Your task to perform on an android device: turn pop-ups on in chrome Image 0: 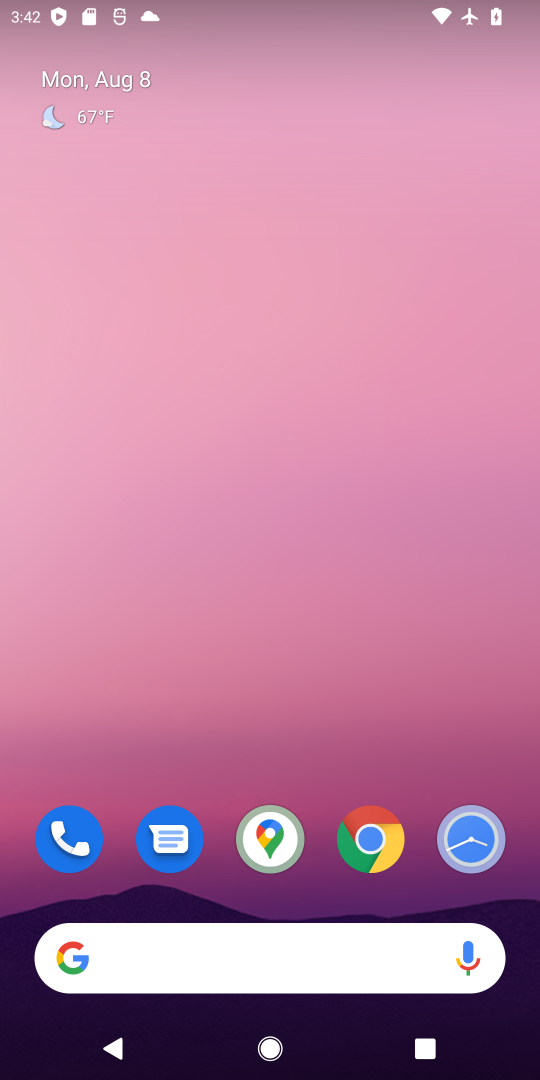
Step 0: press home button
Your task to perform on an android device: turn pop-ups on in chrome Image 1: 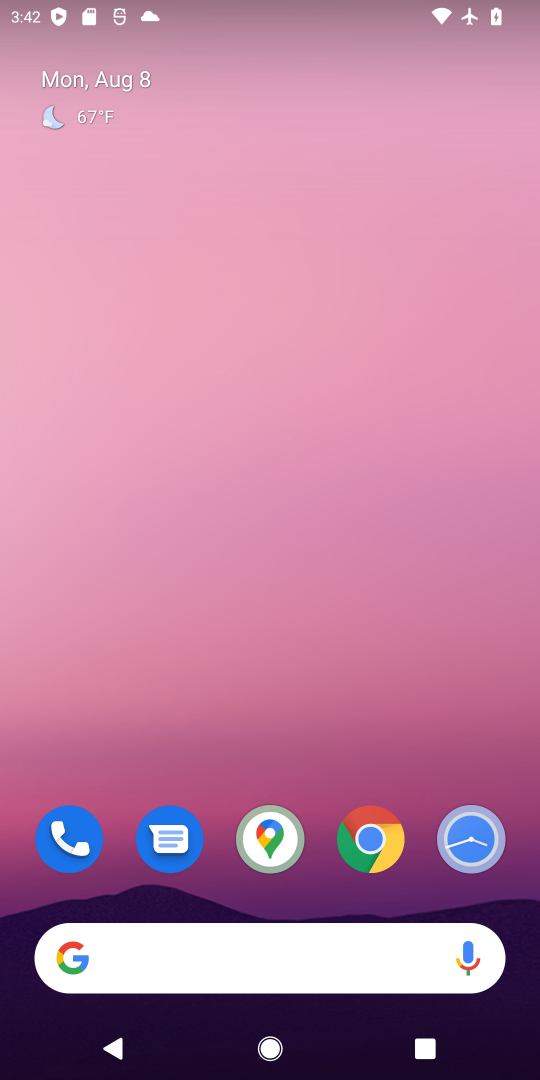
Step 1: drag from (414, 740) to (436, 234)
Your task to perform on an android device: turn pop-ups on in chrome Image 2: 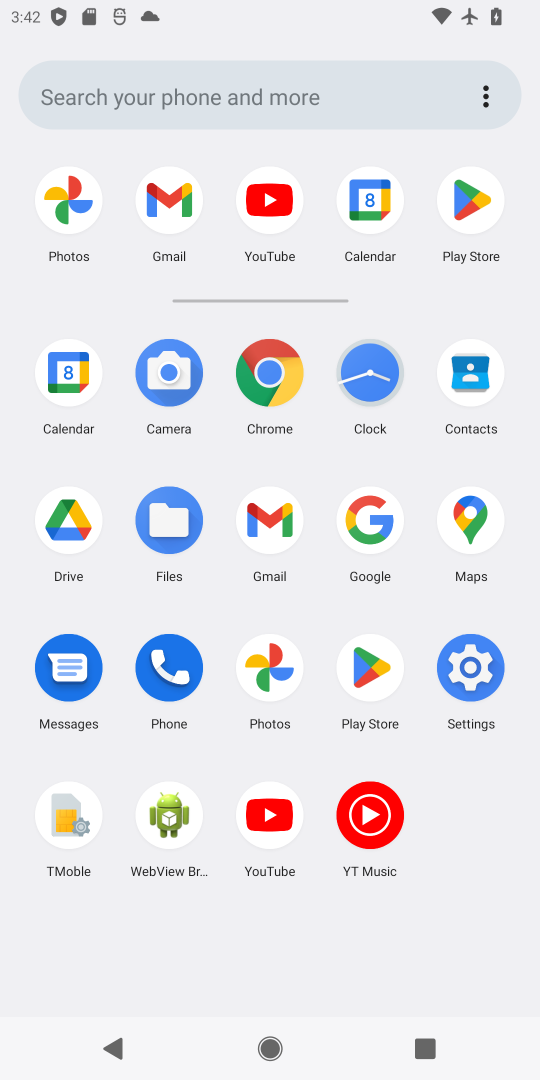
Step 2: click (272, 381)
Your task to perform on an android device: turn pop-ups on in chrome Image 3: 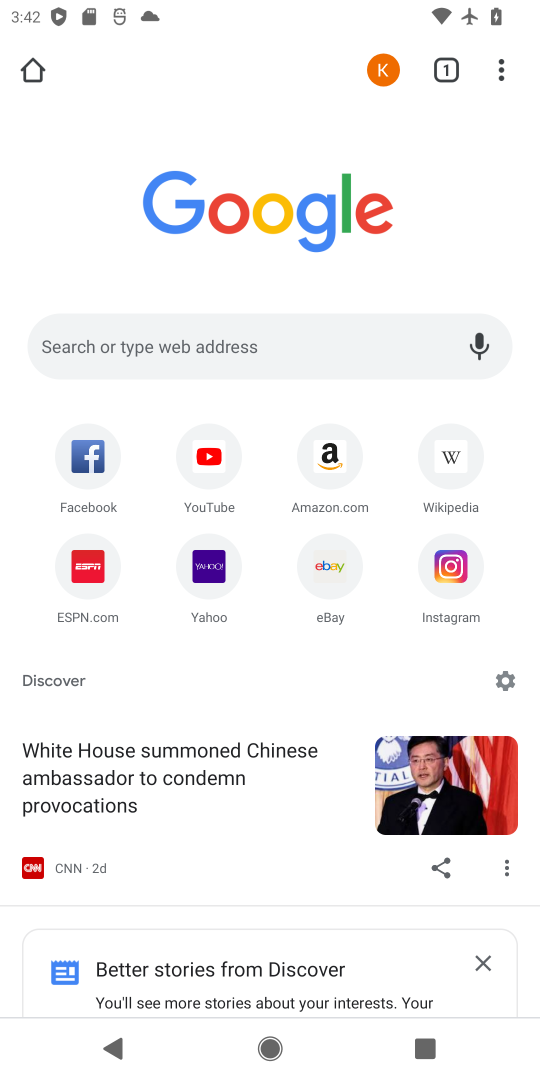
Step 3: click (501, 69)
Your task to perform on an android device: turn pop-ups on in chrome Image 4: 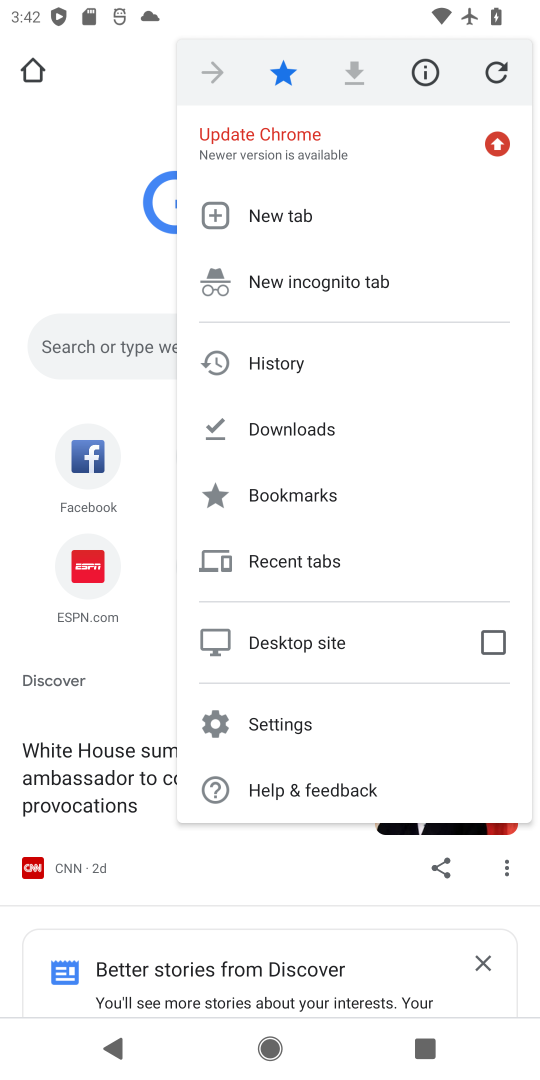
Step 4: click (328, 727)
Your task to perform on an android device: turn pop-ups on in chrome Image 5: 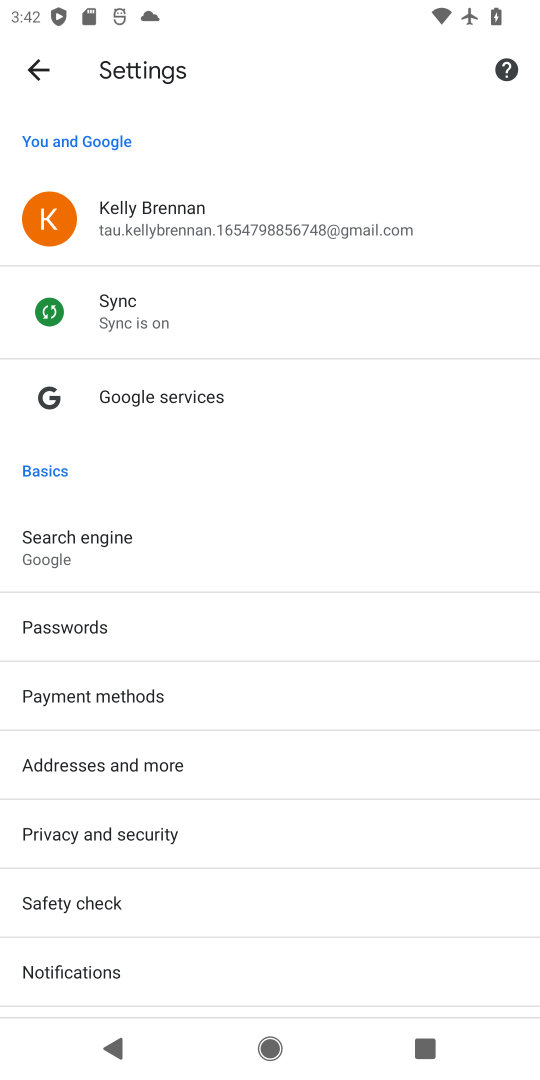
Step 5: drag from (371, 868) to (378, 691)
Your task to perform on an android device: turn pop-ups on in chrome Image 6: 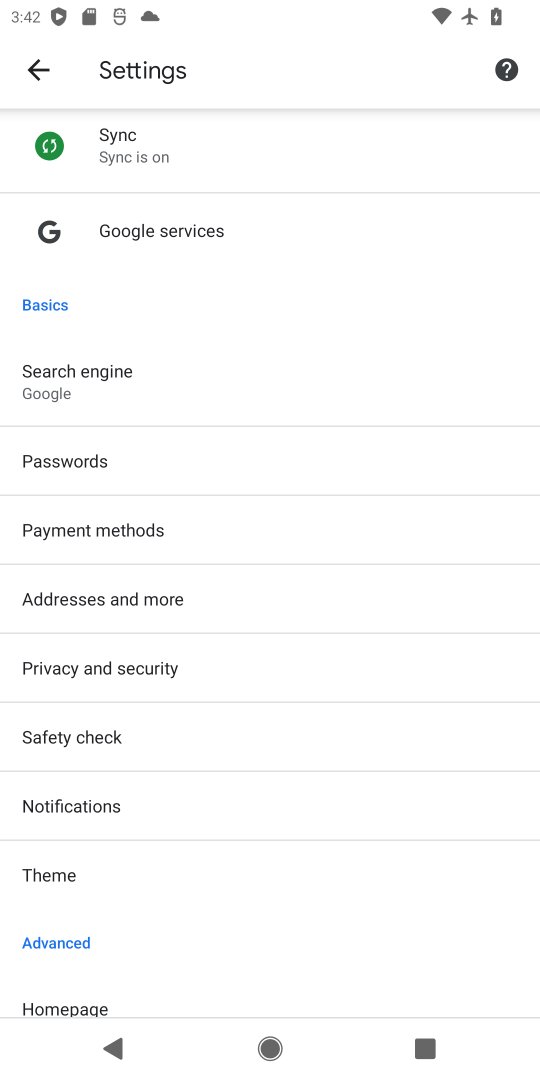
Step 6: drag from (399, 699) to (405, 581)
Your task to perform on an android device: turn pop-ups on in chrome Image 7: 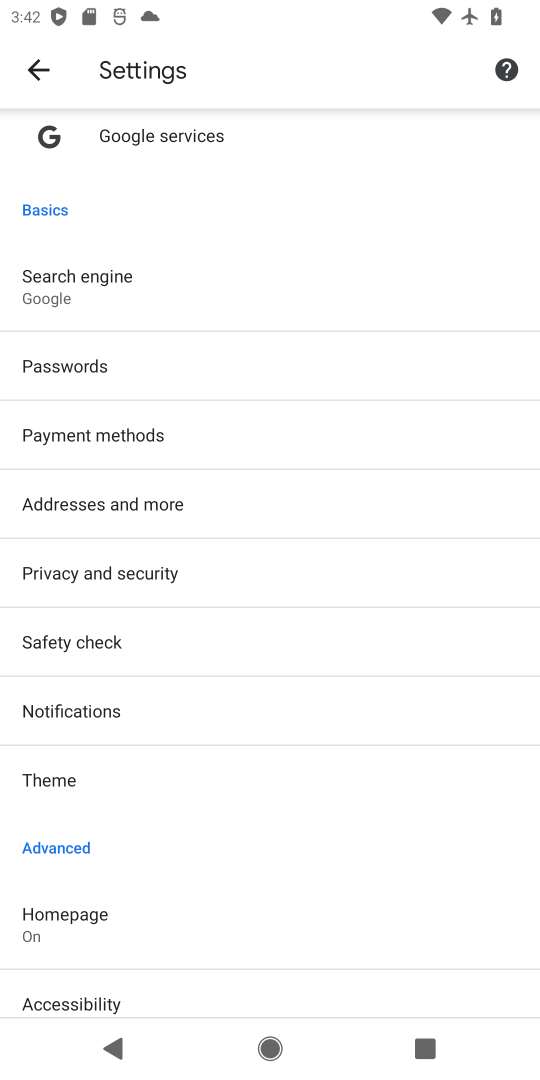
Step 7: drag from (384, 705) to (396, 555)
Your task to perform on an android device: turn pop-ups on in chrome Image 8: 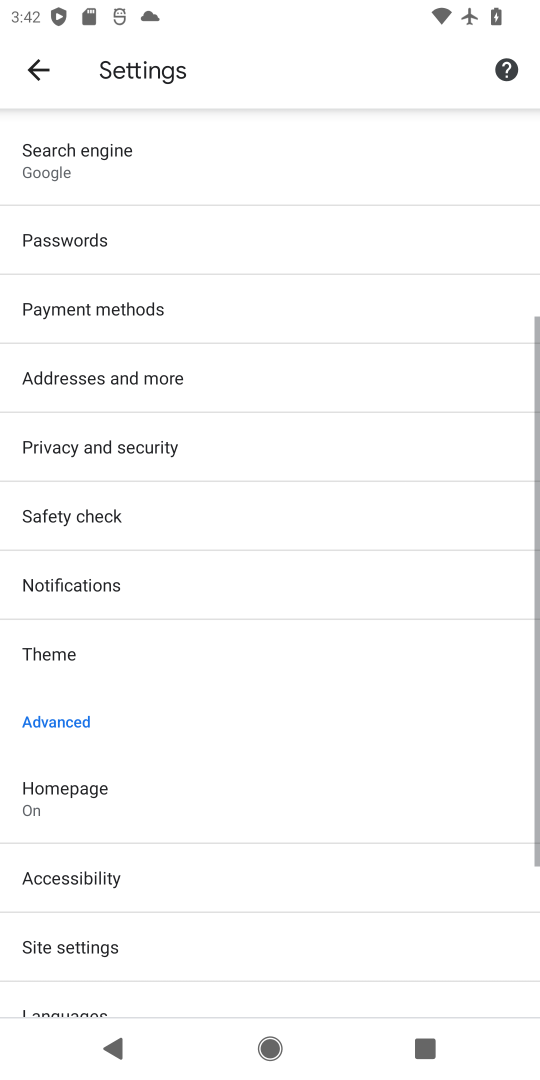
Step 8: drag from (360, 736) to (366, 581)
Your task to perform on an android device: turn pop-ups on in chrome Image 9: 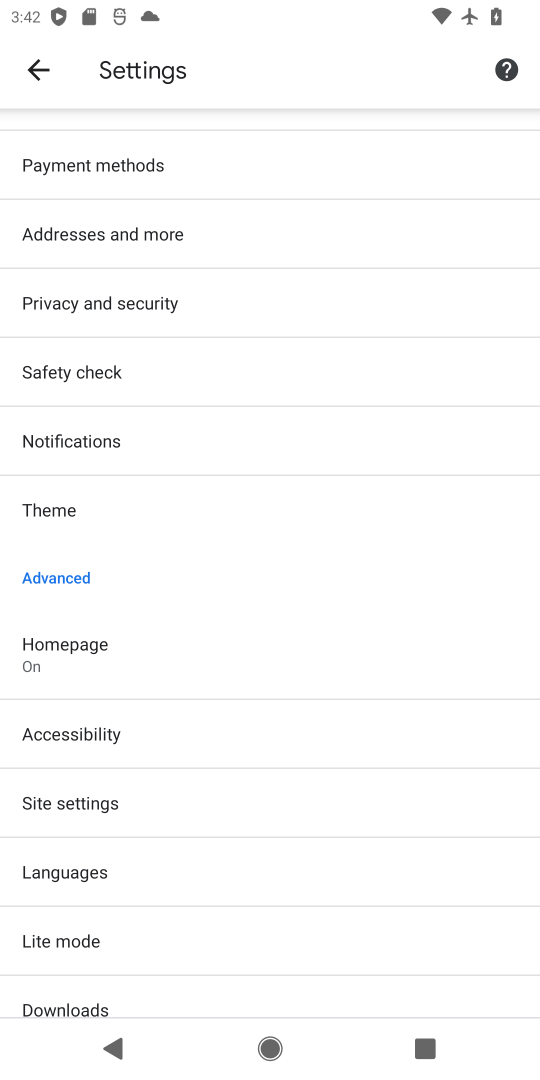
Step 9: drag from (326, 745) to (324, 611)
Your task to perform on an android device: turn pop-ups on in chrome Image 10: 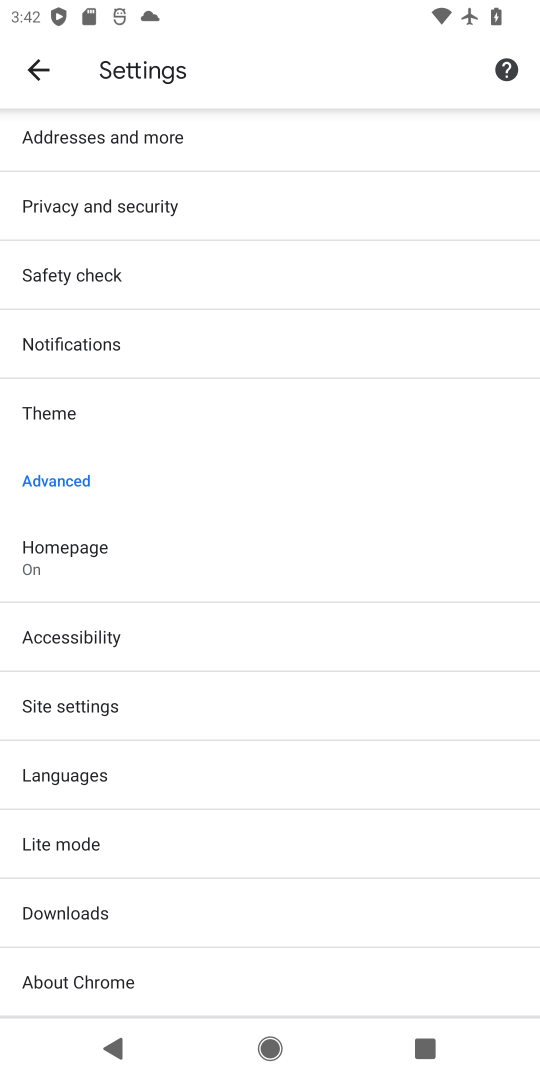
Step 10: click (291, 701)
Your task to perform on an android device: turn pop-ups on in chrome Image 11: 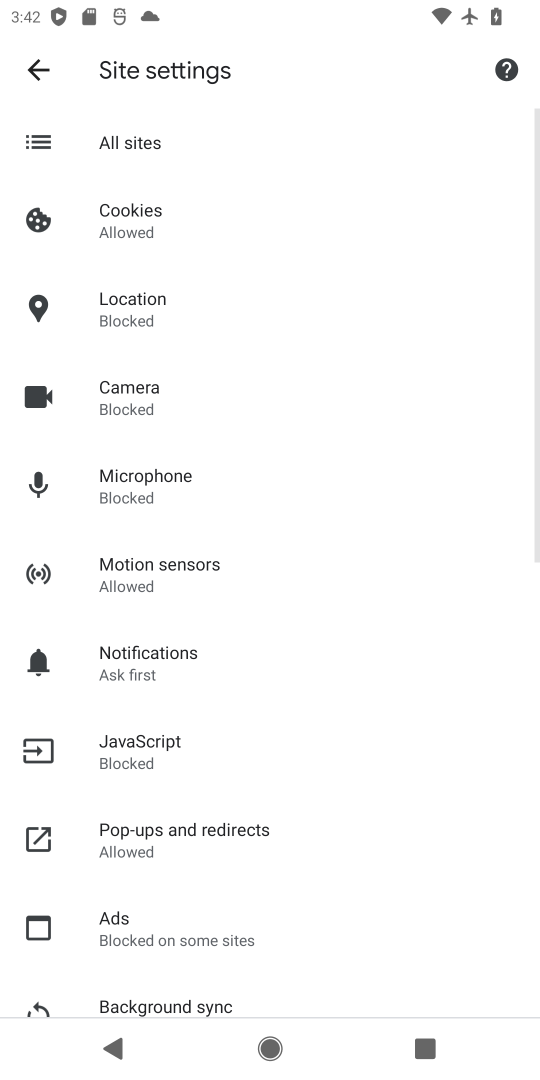
Step 11: drag from (378, 720) to (381, 495)
Your task to perform on an android device: turn pop-ups on in chrome Image 12: 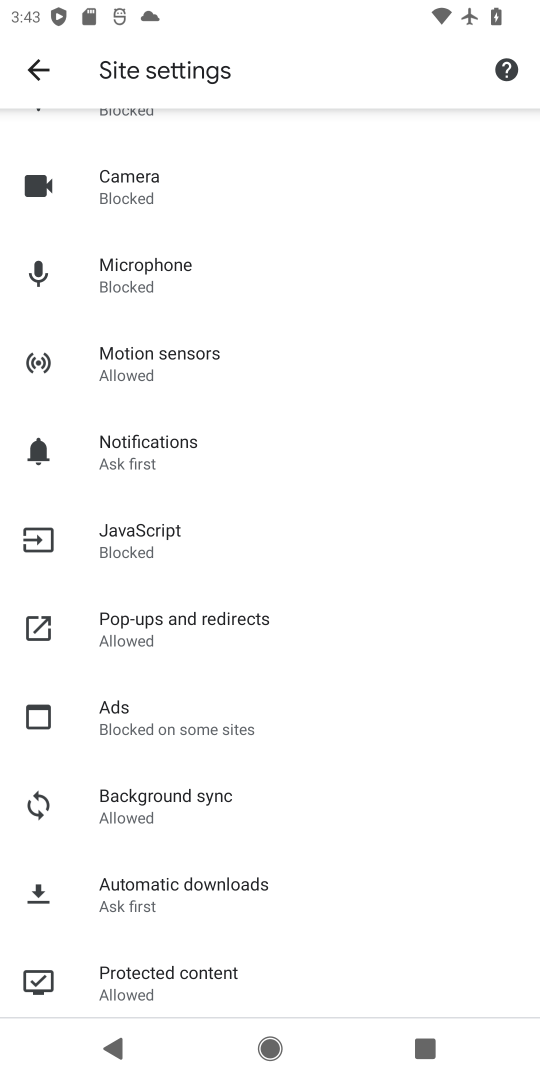
Step 12: drag from (374, 731) to (390, 608)
Your task to perform on an android device: turn pop-ups on in chrome Image 13: 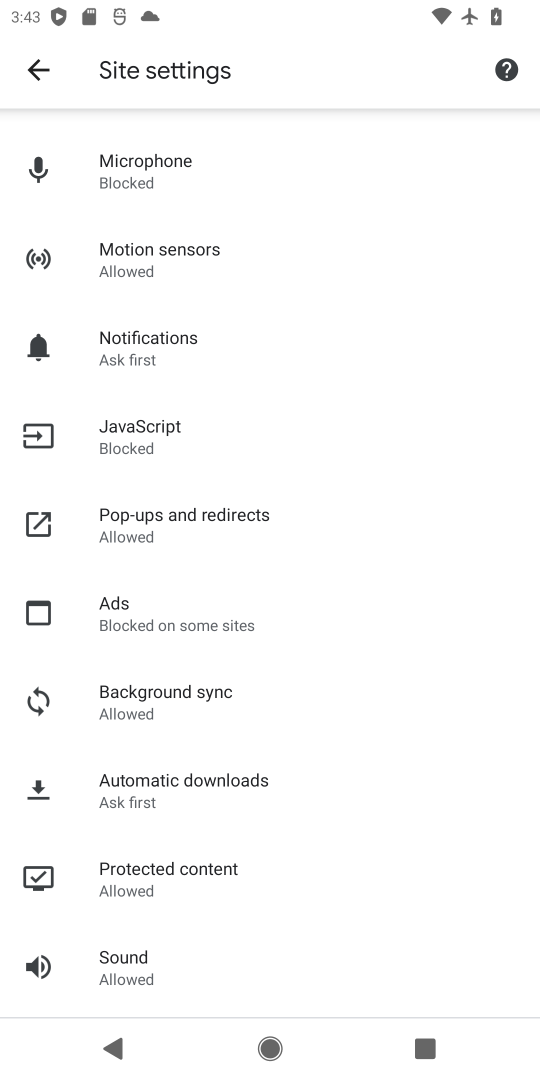
Step 13: click (288, 518)
Your task to perform on an android device: turn pop-ups on in chrome Image 14: 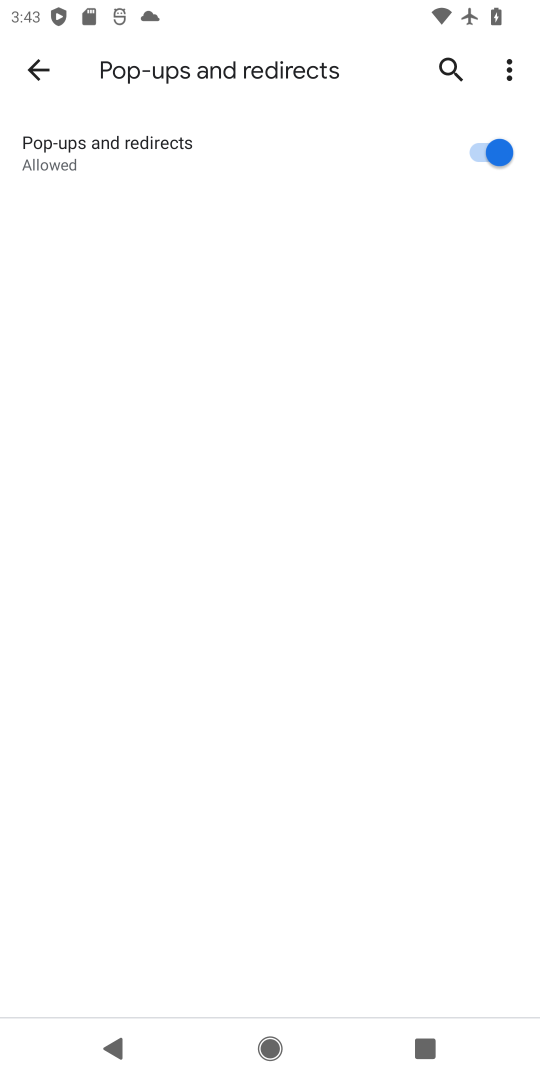
Step 14: task complete